Your task to perform on an android device: What is the news today? Image 0: 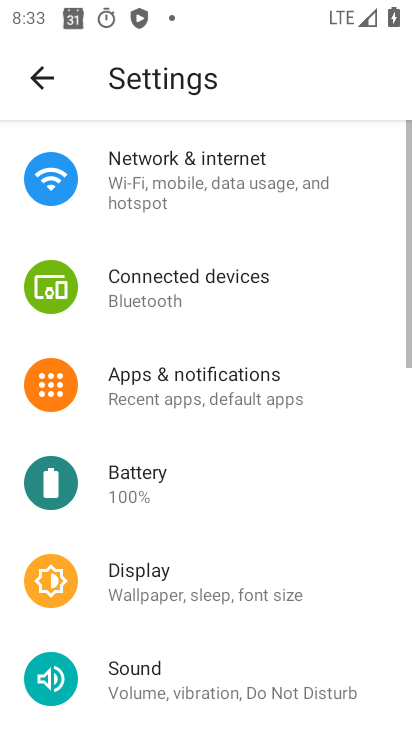
Step 0: press home button
Your task to perform on an android device: What is the news today? Image 1: 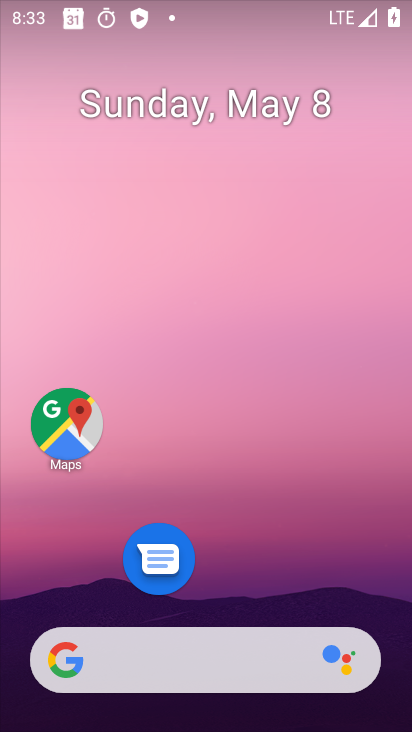
Step 1: drag from (301, 671) to (254, 87)
Your task to perform on an android device: What is the news today? Image 2: 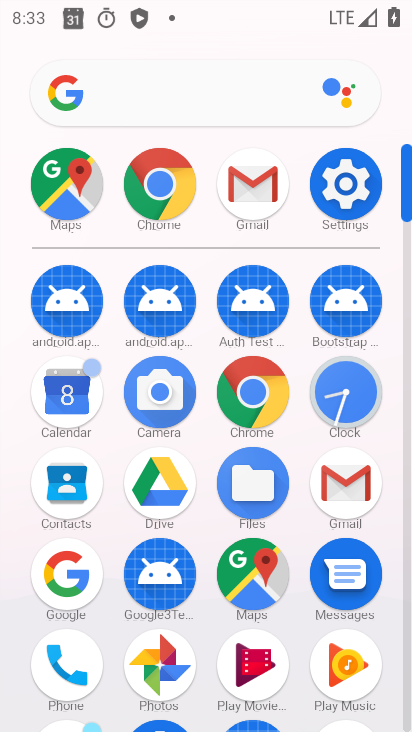
Step 2: click (250, 383)
Your task to perform on an android device: What is the news today? Image 3: 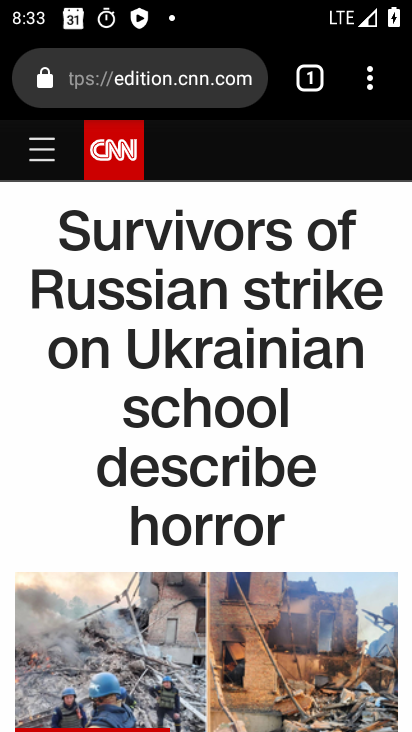
Step 3: click (220, 78)
Your task to perform on an android device: What is the news today? Image 4: 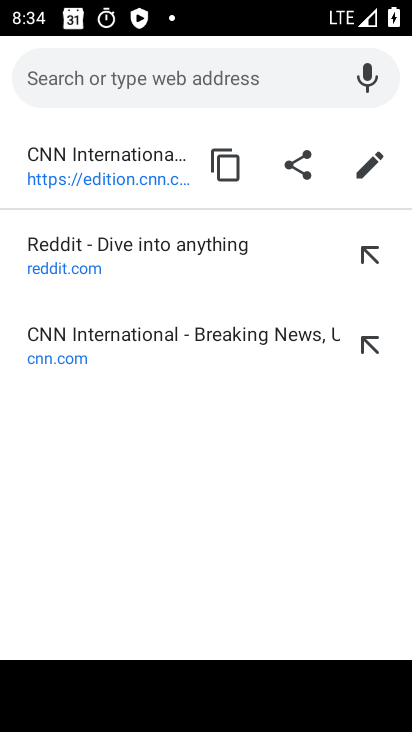
Step 4: type "news today"
Your task to perform on an android device: What is the news today? Image 5: 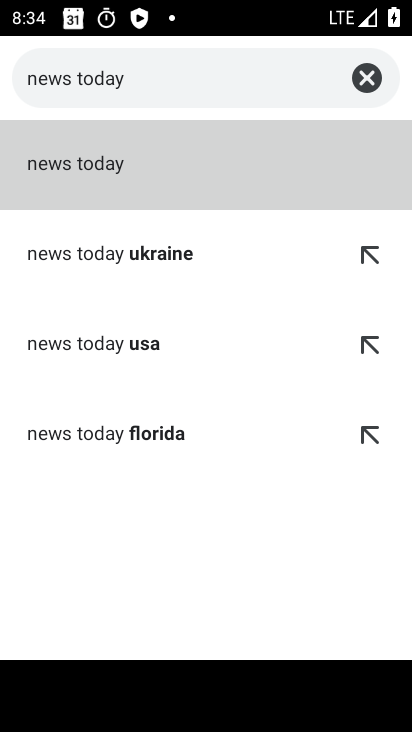
Step 5: click (136, 171)
Your task to perform on an android device: What is the news today? Image 6: 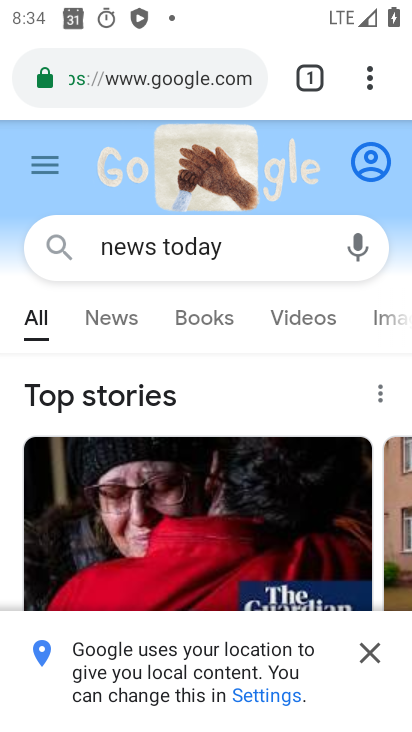
Step 6: task complete